Your task to perform on an android device: When is my next appointment? Image 0: 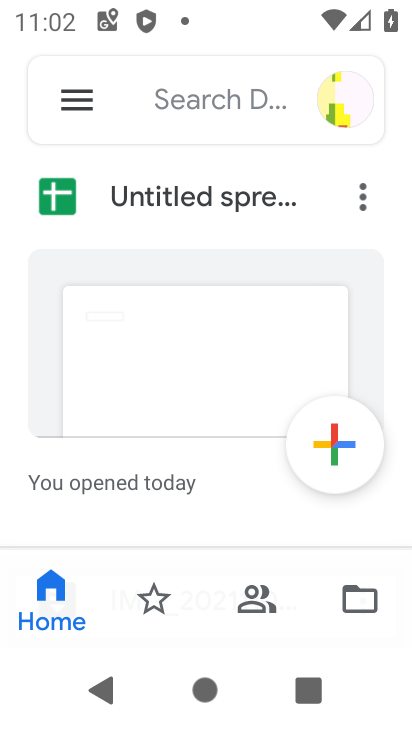
Step 0: press home button
Your task to perform on an android device: When is my next appointment? Image 1: 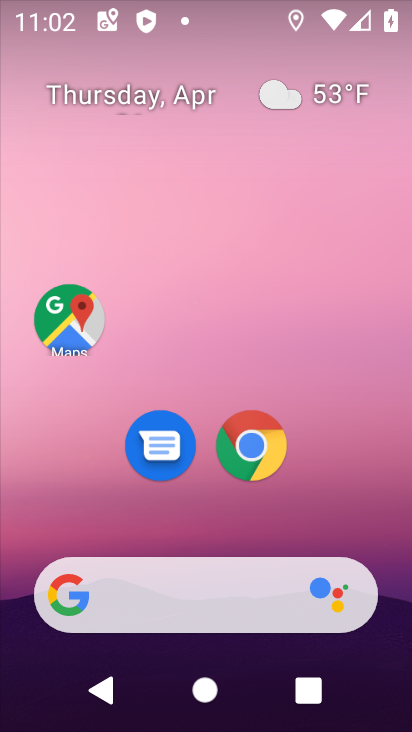
Step 1: drag from (169, 601) to (259, 176)
Your task to perform on an android device: When is my next appointment? Image 2: 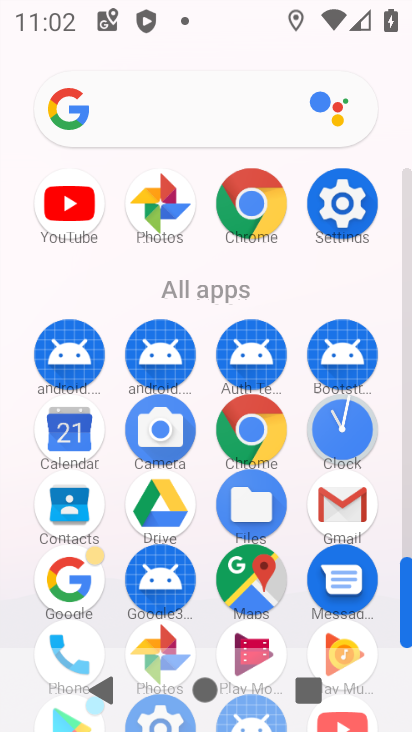
Step 2: click (66, 432)
Your task to perform on an android device: When is my next appointment? Image 3: 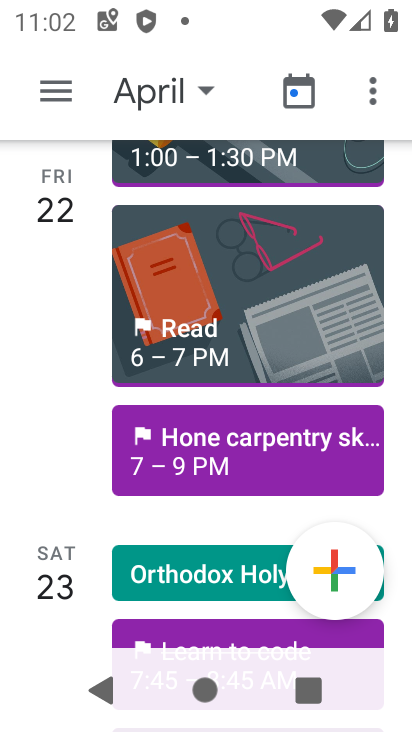
Step 3: click (149, 89)
Your task to perform on an android device: When is my next appointment? Image 4: 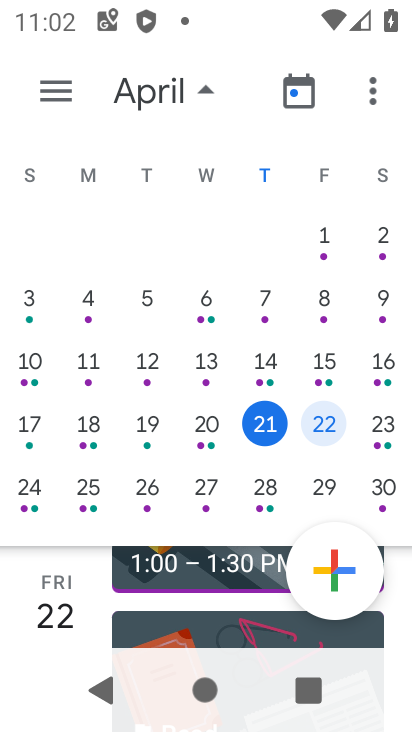
Step 4: click (258, 417)
Your task to perform on an android device: When is my next appointment? Image 5: 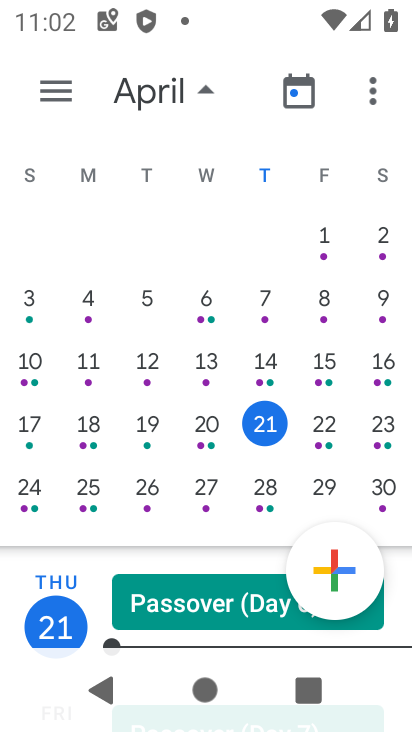
Step 5: click (63, 87)
Your task to perform on an android device: When is my next appointment? Image 6: 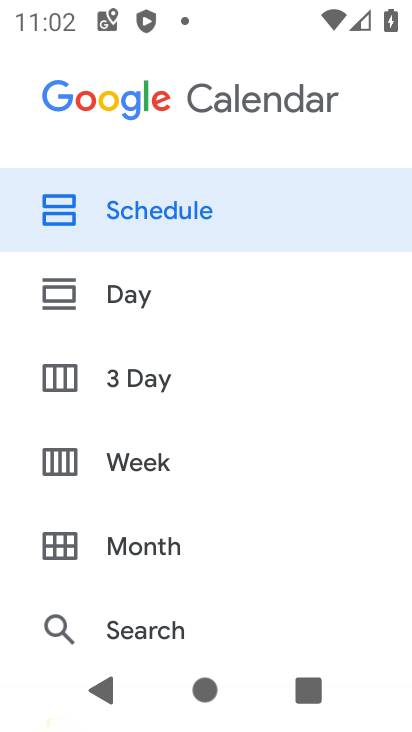
Step 6: click (168, 217)
Your task to perform on an android device: When is my next appointment? Image 7: 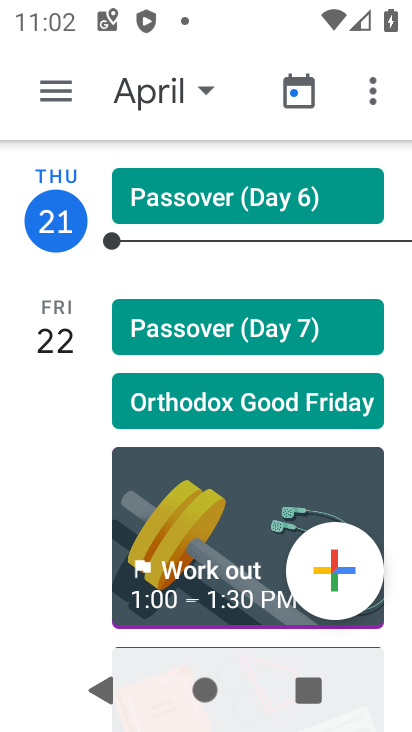
Step 7: drag from (132, 547) to (363, 147)
Your task to perform on an android device: When is my next appointment? Image 8: 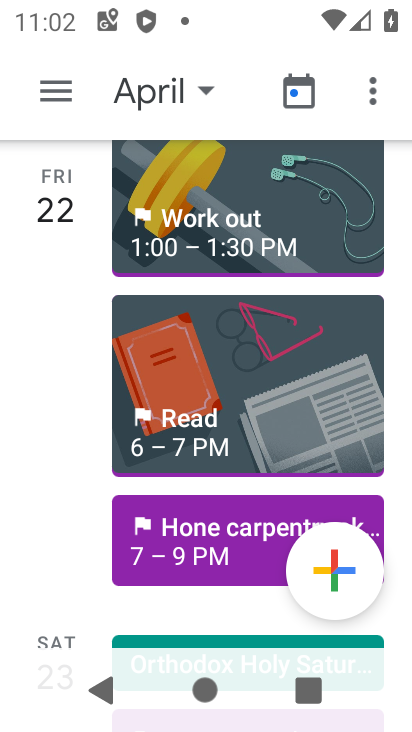
Step 8: click (188, 532)
Your task to perform on an android device: When is my next appointment? Image 9: 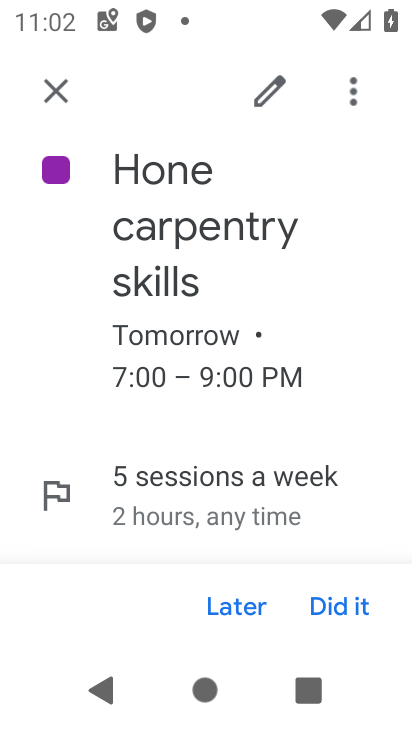
Step 9: task complete